Your task to perform on an android device: Show me productivity apps on the Play Store Image 0: 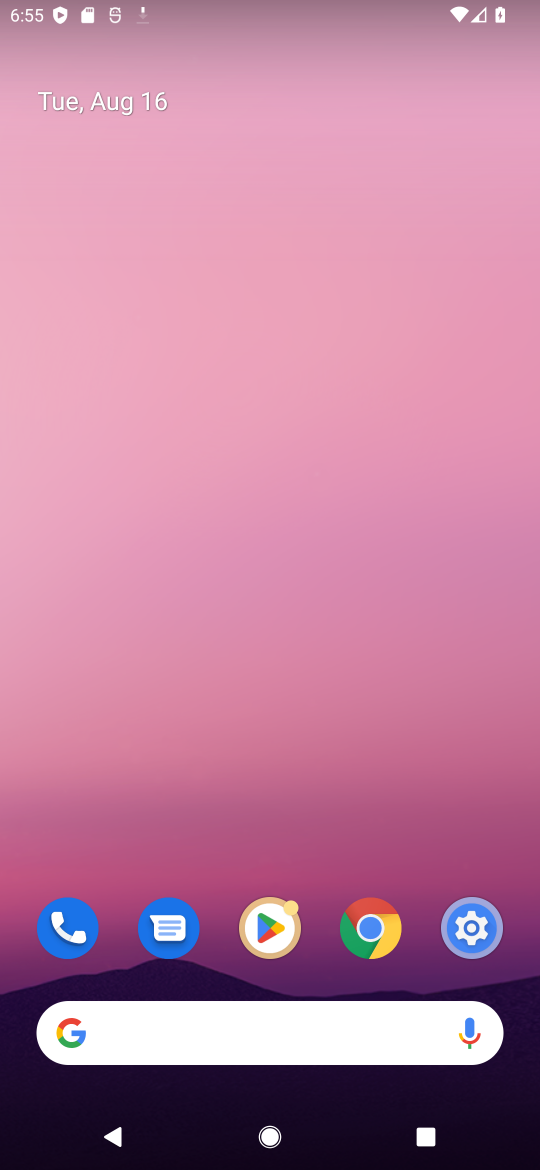
Step 0: click (283, 939)
Your task to perform on an android device: Show me productivity apps on the Play Store Image 1: 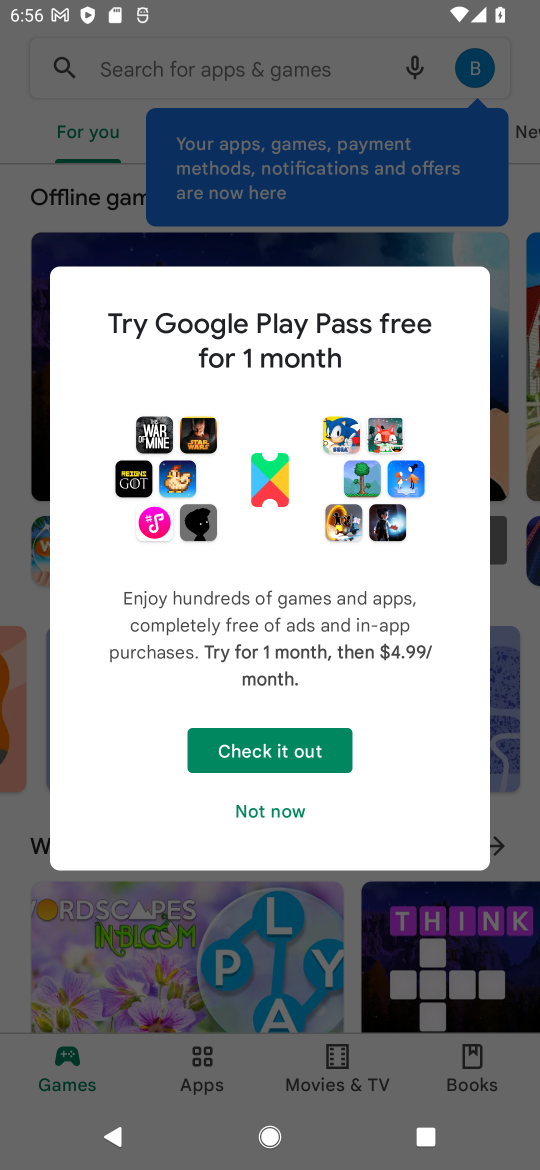
Step 1: click (283, 812)
Your task to perform on an android device: Show me productivity apps on the Play Store Image 2: 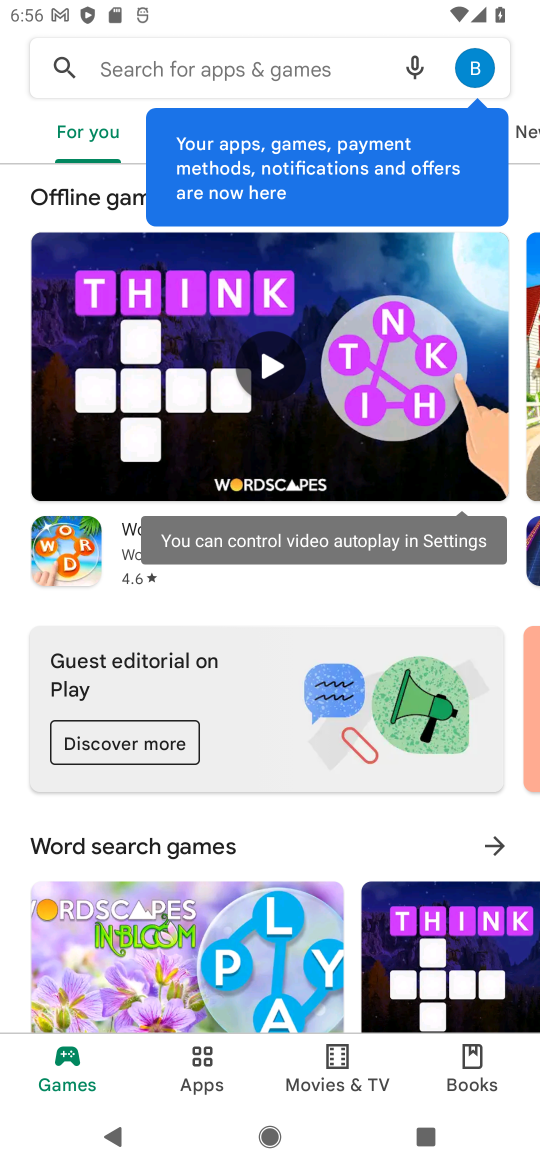
Step 2: click (110, 142)
Your task to perform on an android device: Show me productivity apps on the Play Store Image 3: 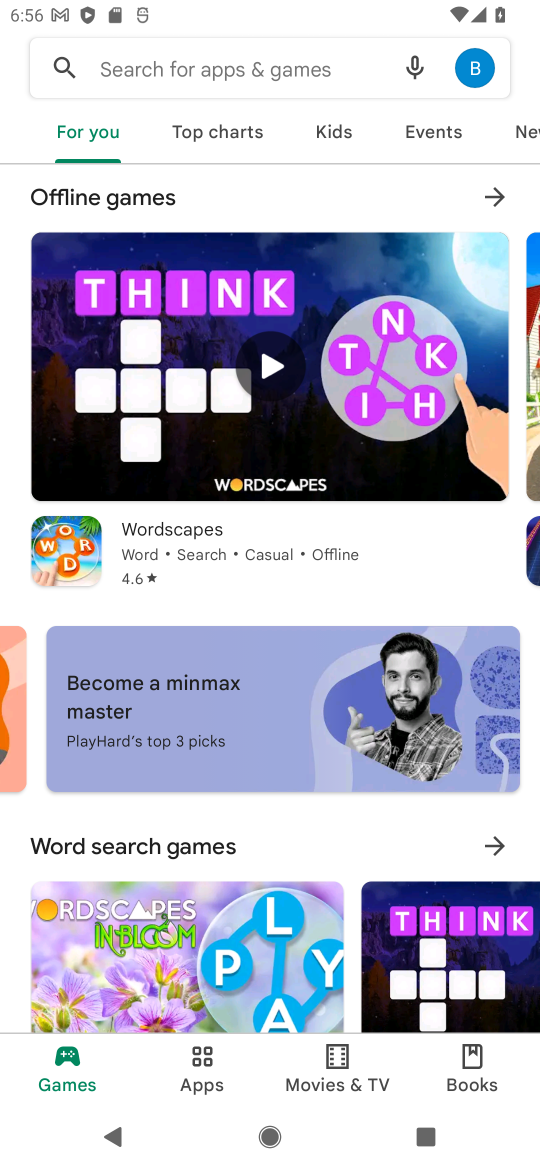
Step 3: click (192, 1082)
Your task to perform on an android device: Show me productivity apps on the Play Store Image 4: 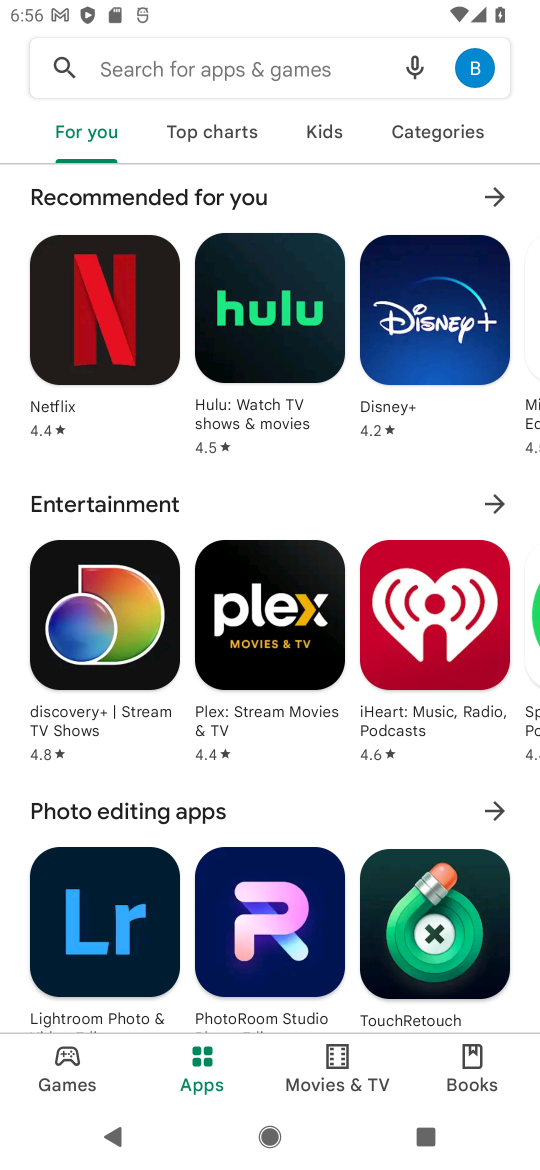
Step 4: click (421, 135)
Your task to perform on an android device: Show me productivity apps on the Play Store Image 5: 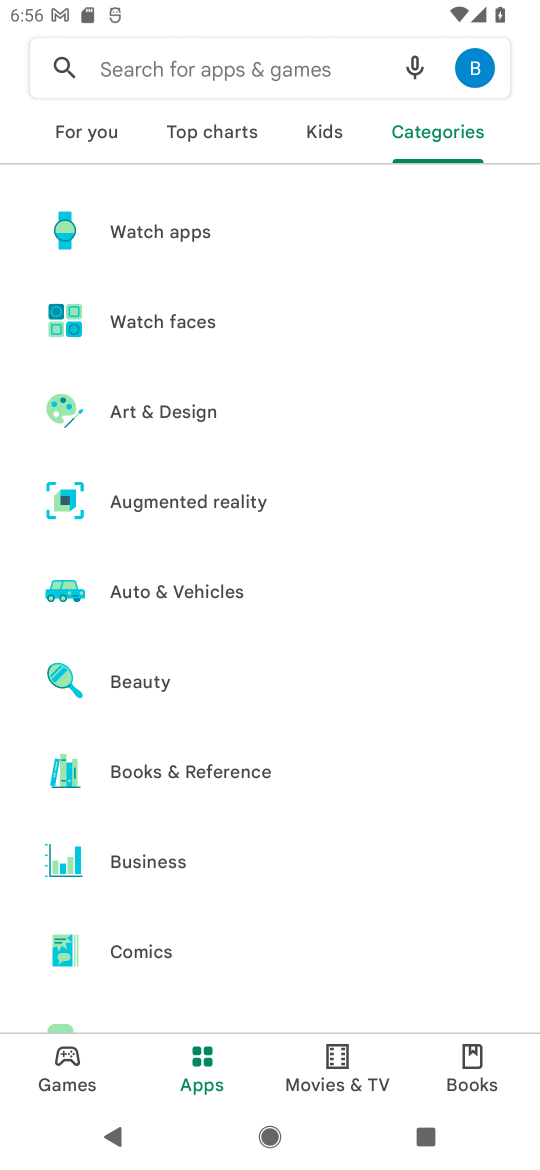
Step 5: drag from (296, 893) to (310, 51)
Your task to perform on an android device: Show me productivity apps on the Play Store Image 6: 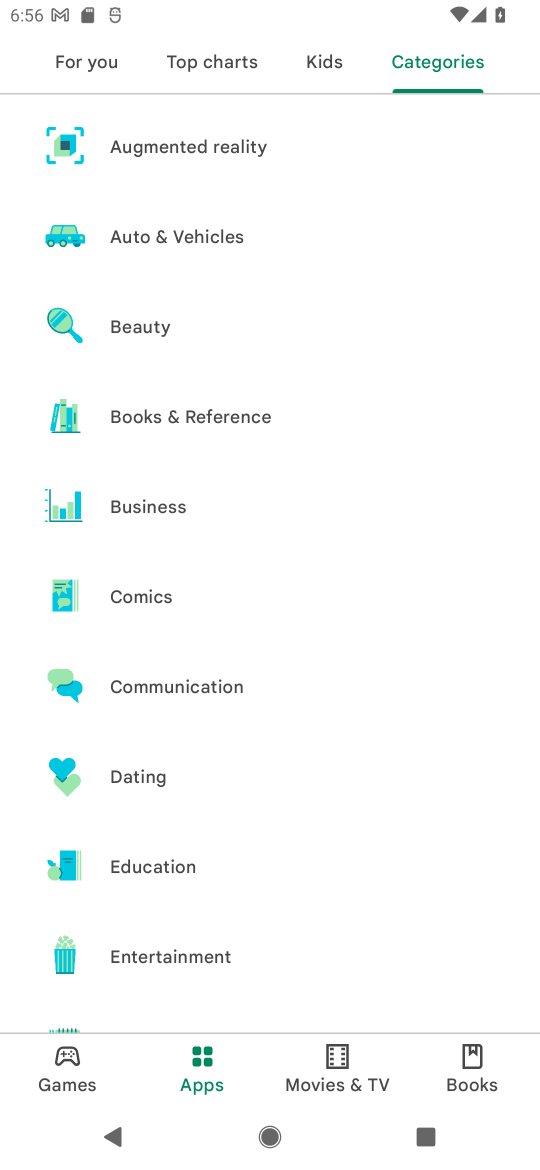
Step 6: drag from (251, 881) to (223, 132)
Your task to perform on an android device: Show me productivity apps on the Play Store Image 7: 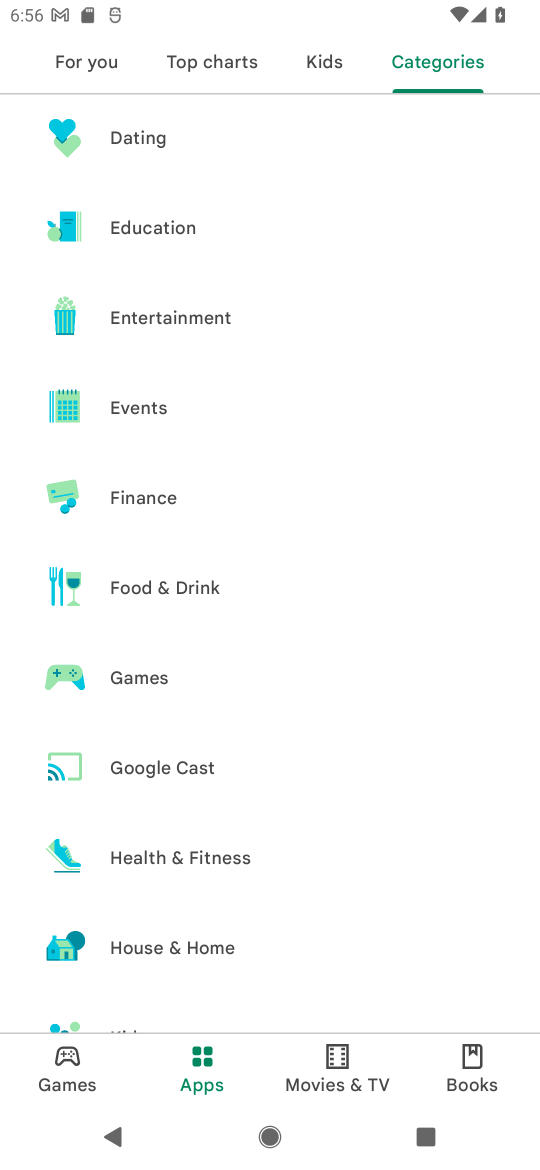
Step 7: drag from (231, 946) to (265, 53)
Your task to perform on an android device: Show me productivity apps on the Play Store Image 8: 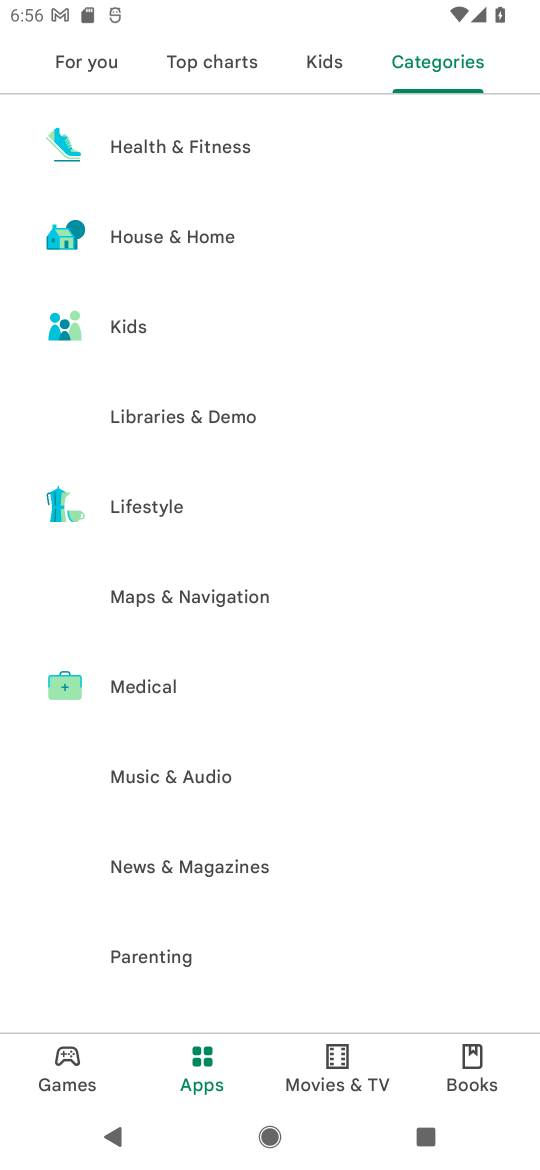
Step 8: drag from (222, 882) to (107, 41)
Your task to perform on an android device: Show me productivity apps on the Play Store Image 9: 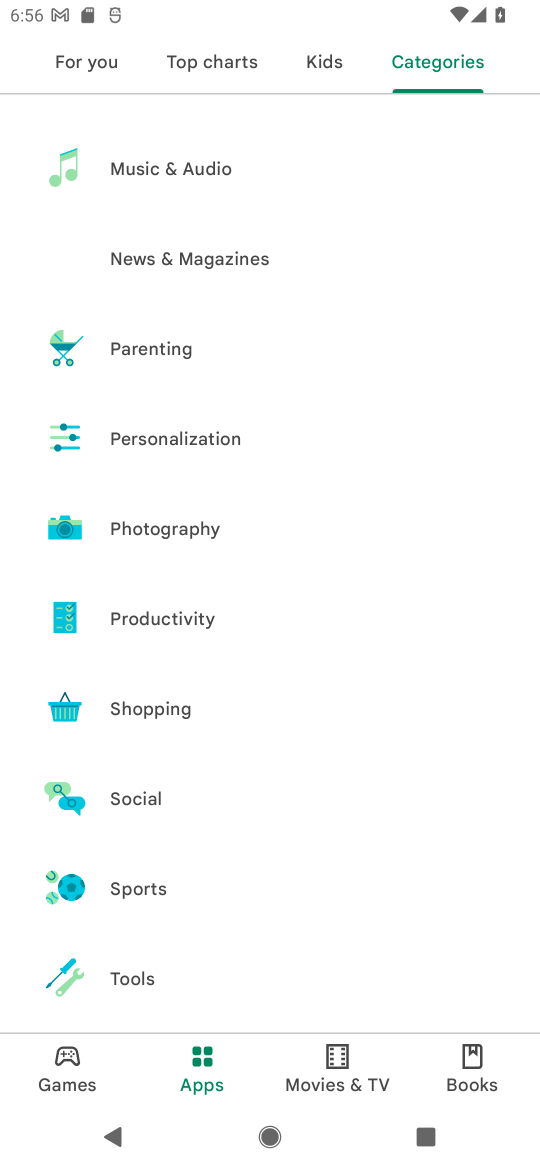
Step 9: click (208, 627)
Your task to perform on an android device: Show me productivity apps on the Play Store Image 10: 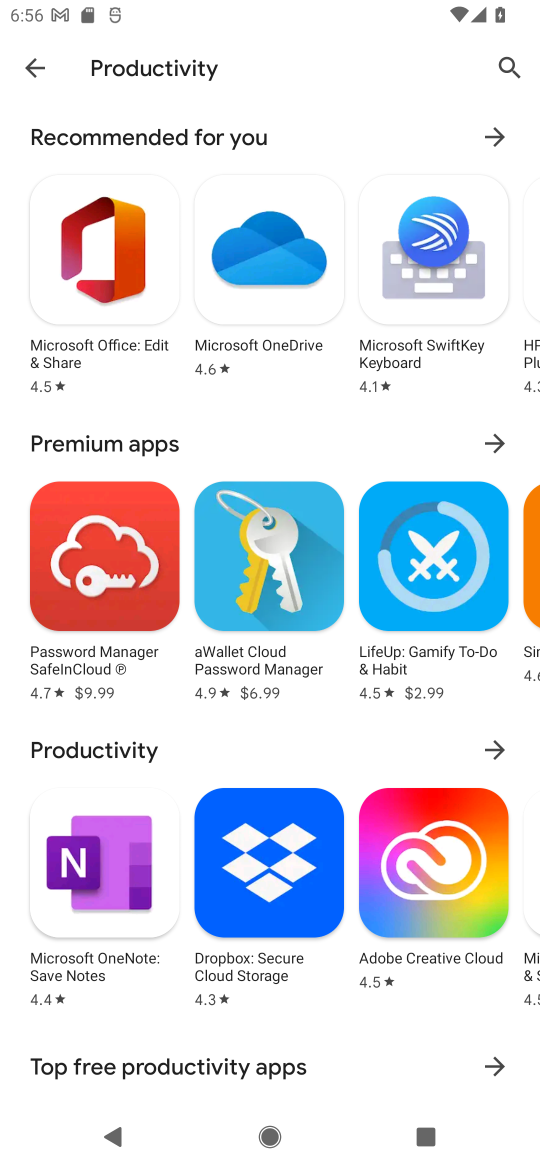
Step 10: task complete